Your task to perform on an android device: turn off improve location accuracy Image 0: 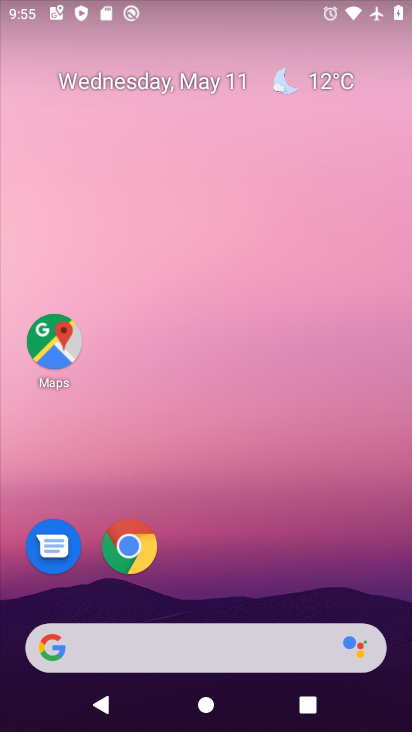
Step 0: click (393, 565)
Your task to perform on an android device: turn off improve location accuracy Image 1: 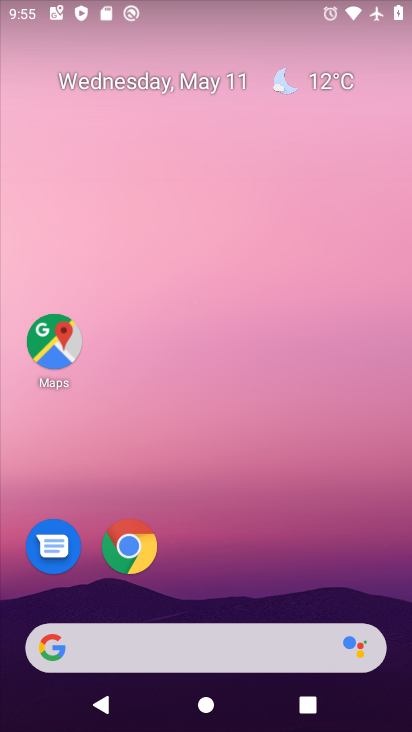
Step 1: drag from (391, 619) to (329, 238)
Your task to perform on an android device: turn off improve location accuracy Image 2: 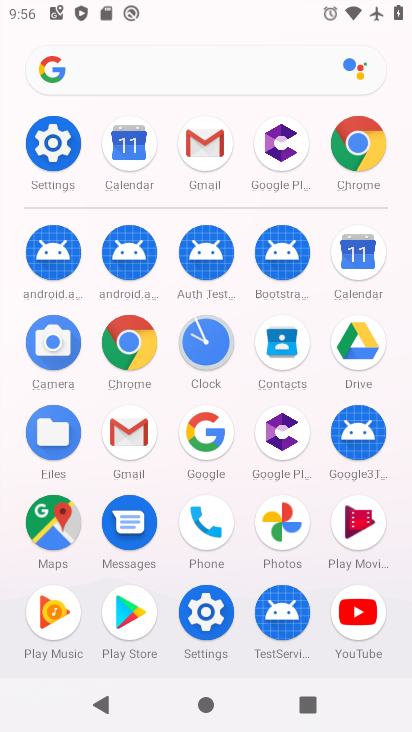
Step 2: click (205, 606)
Your task to perform on an android device: turn off improve location accuracy Image 3: 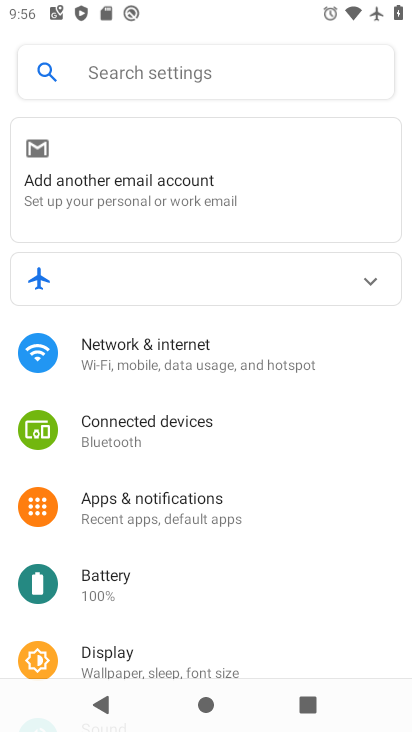
Step 3: drag from (328, 633) to (269, 149)
Your task to perform on an android device: turn off improve location accuracy Image 4: 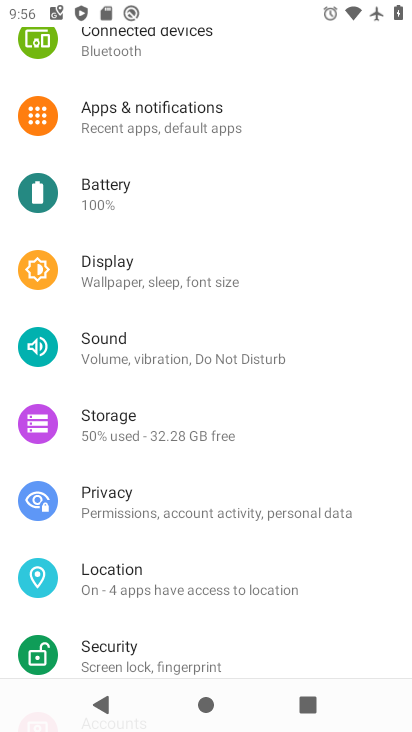
Step 4: drag from (325, 658) to (276, 137)
Your task to perform on an android device: turn off improve location accuracy Image 5: 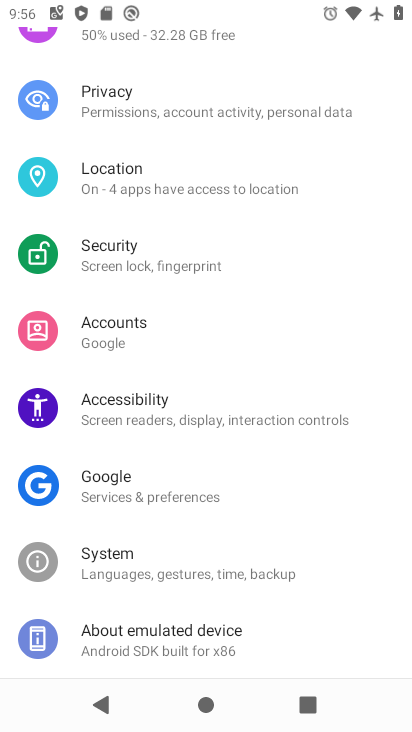
Step 5: drag from (304, 625) to (376, 199)
Your task to perform on an android device: turn off improve location accuracy Image 6: 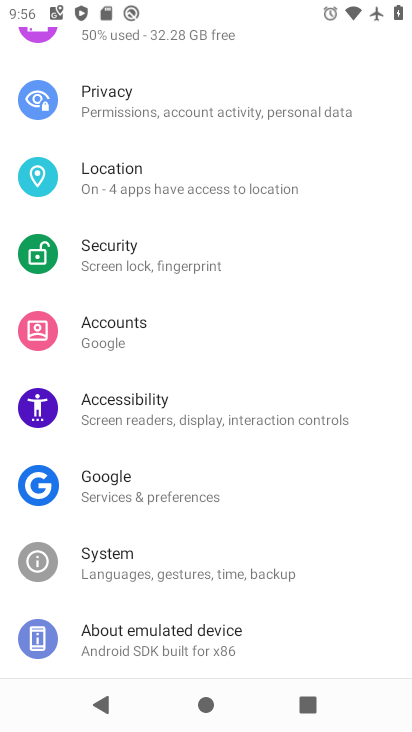
Step 6: click (120, 176)
Your task to perform on an android device: turn off improve location accuracy Image 7: 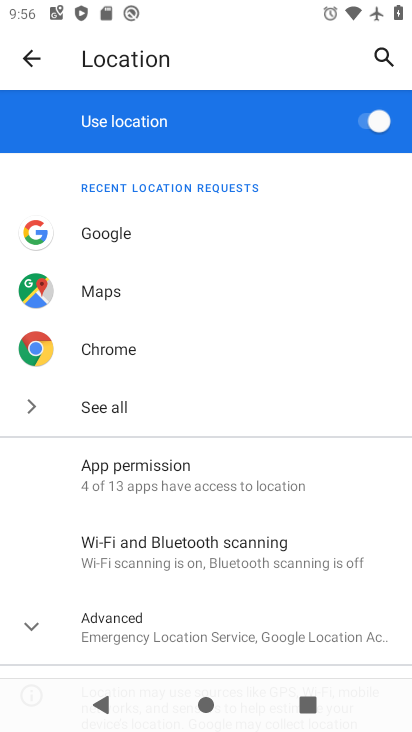
Step 7: click (48, 615)
Your task to perform on an android device: turn off improve location accuracy Image 8: 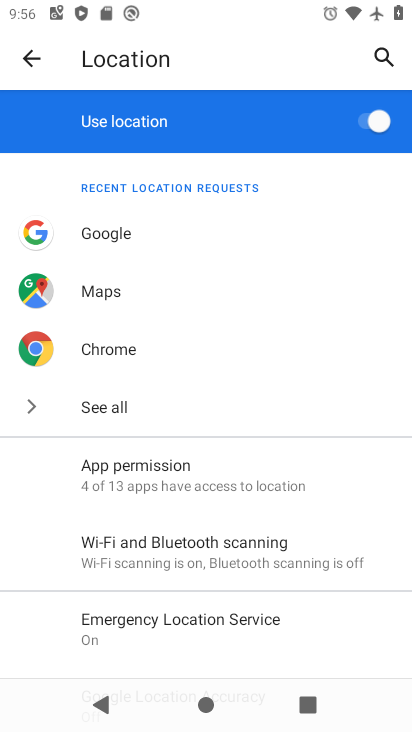
Step 8: drag from (252, 618) to (276, 185)
Your task to perform on an android device: turn off improve location accuracy Image 9: 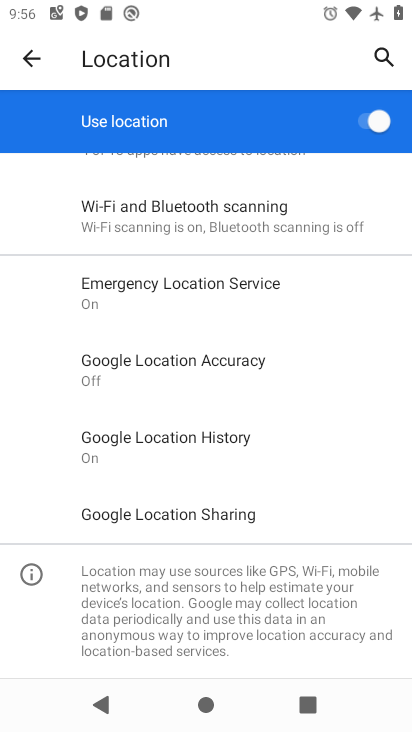
Step 9: click (139, 361)
Your task to perform on an android device: turn off improve location accuracy Image 10: 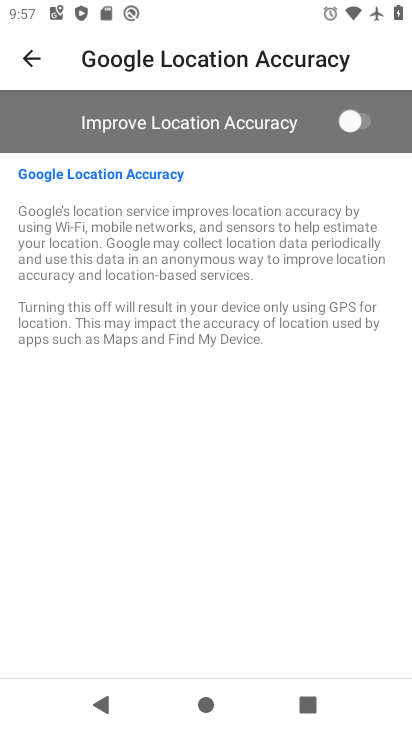
Step 10: task complete